Your task to perform on an android device: Go to Android settings Image 0: 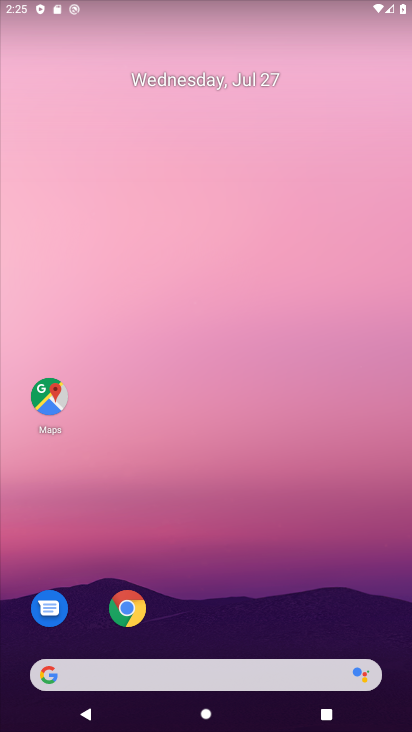
Step 0: press home button
Your task to perform on an android device: Go to Android settings Image 1: 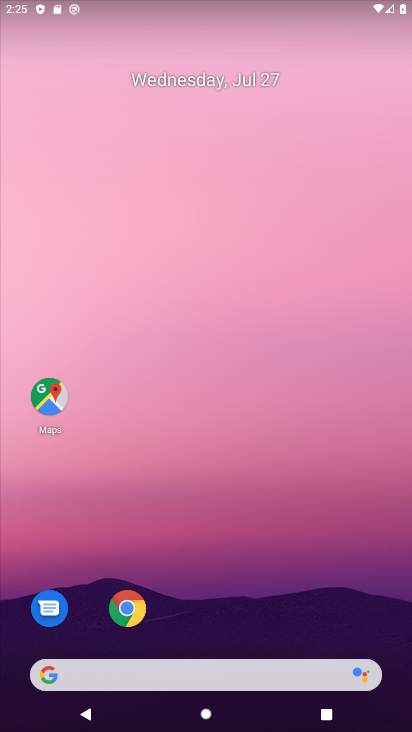
Step 1: drag from (256, 633) to (335, 209)
Your task to perform on an android device: Go to Android settings Image 2: 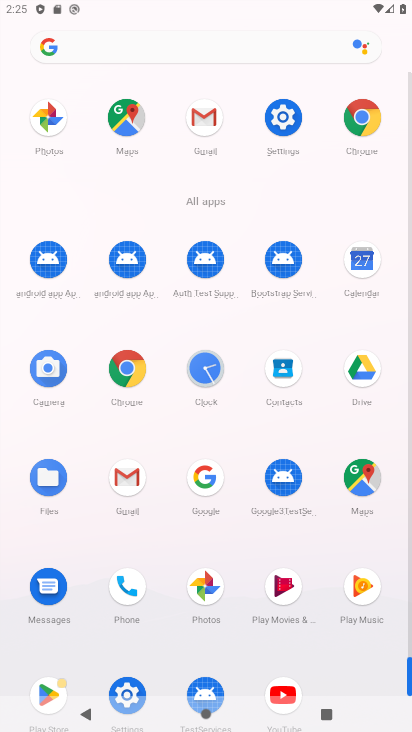
Step 2: click (278, 114)
Your task to perform on an android device: Go to Android settings Image 3: 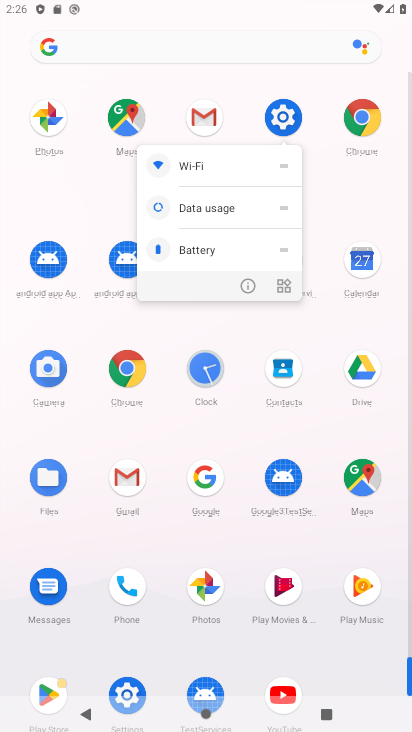
Step 3: click (285, 109)
Your task to perform on an android device: Go to Android settings Image 4: 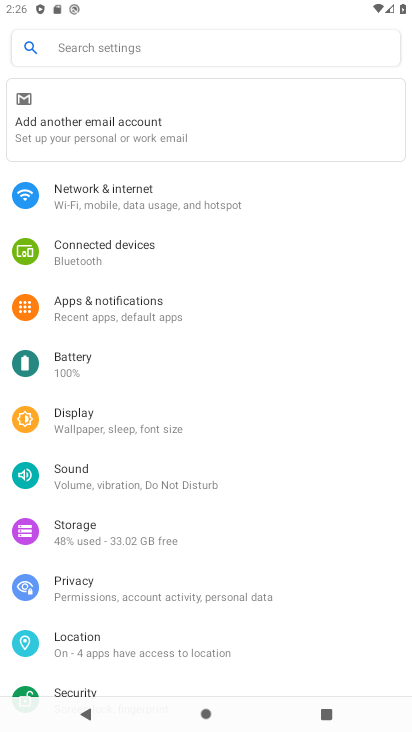
Step 4: drag from (206, 479) to (257, 115)
Your task to perform on an android device: Go to Android settings Image 5: 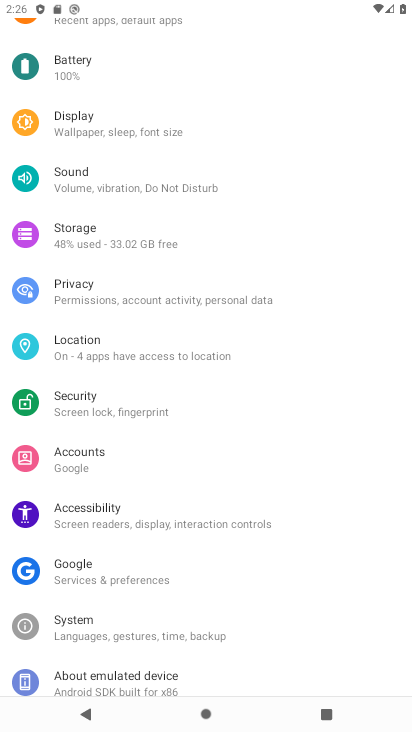
Step 5: click (155, 678)
Your task to perform on an android device: Go to Android settings Image 6: 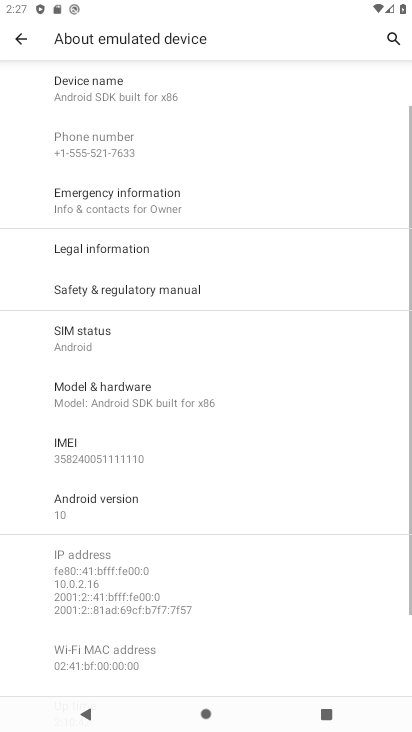
Step 6: task complete